Your task to perform on an android device: Open internet settings Image 0: 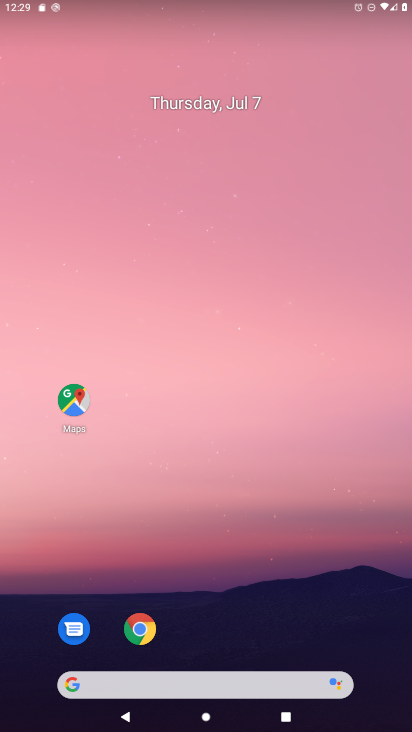
Step 0: drag from (198, 589) to (198, 146)
Your task to perform on an android device: Open internet settings Image 1: 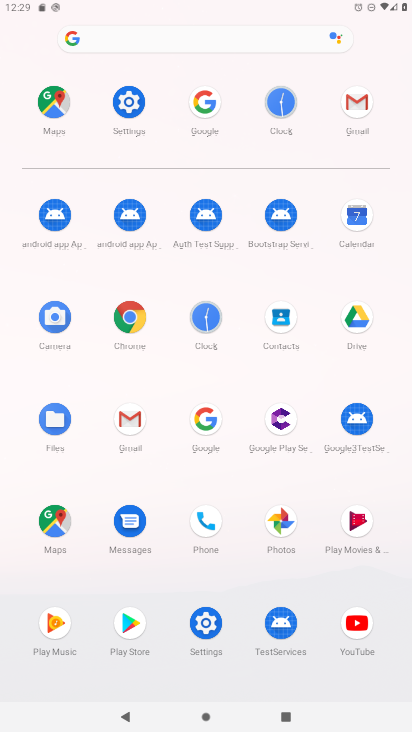
Step 1: click (146, 115)
Your task to perform on an android device: Open internet settings Image 2: 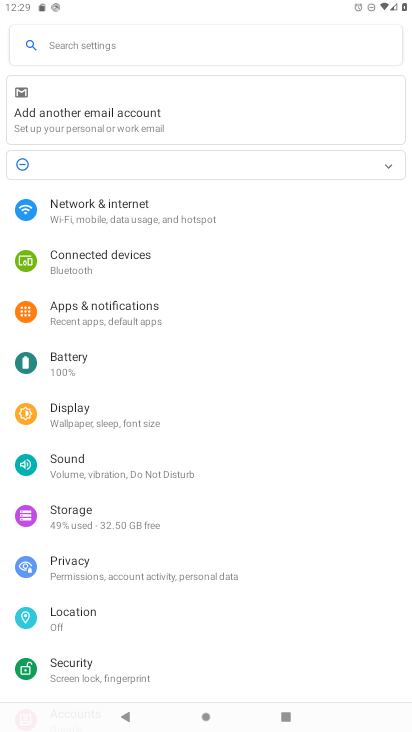
Step 2: click (155, 216)
Your task to perform on an android device: Open internet settings Image 3: 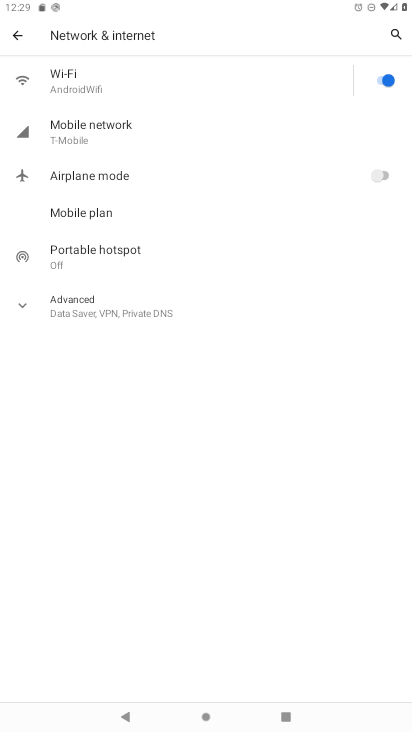
Step 3: task complete